Your task to perform on an android device: turn on wifi Image 0: 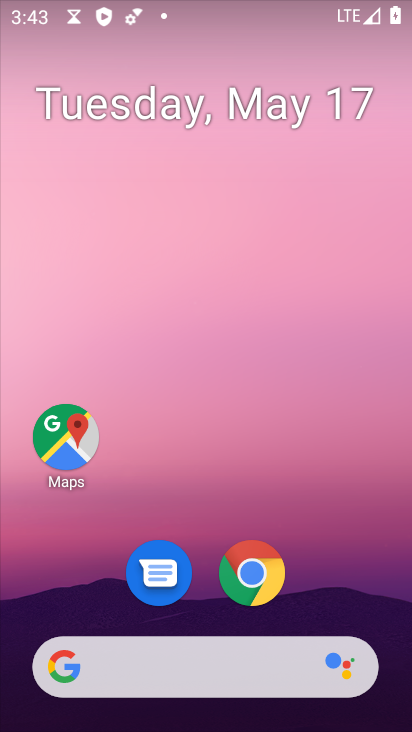
Step 0: drag from (347, 604) to (236, 118)
Your task to perform on an android device: turn on wifi Image 1: 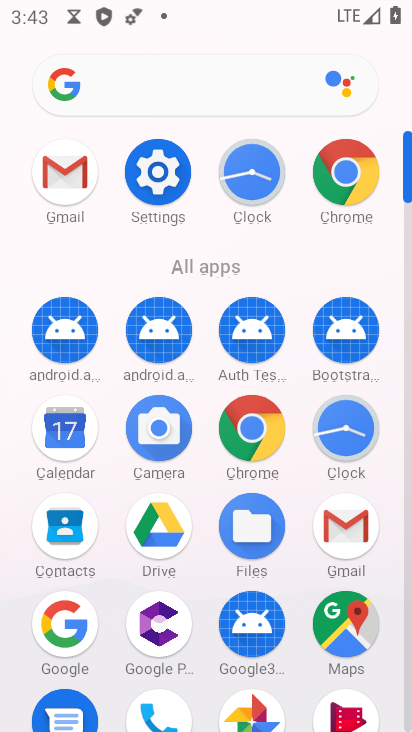
Step 1: click (169, 183)
Your task to perform on an android device: turn on wifi Image 2: 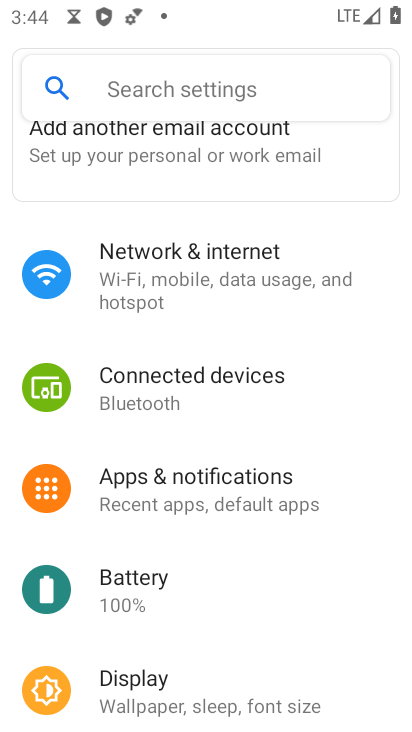
Step 2: click (260, 277)
Your task to perform on an android device: turn on wifi Image 3: 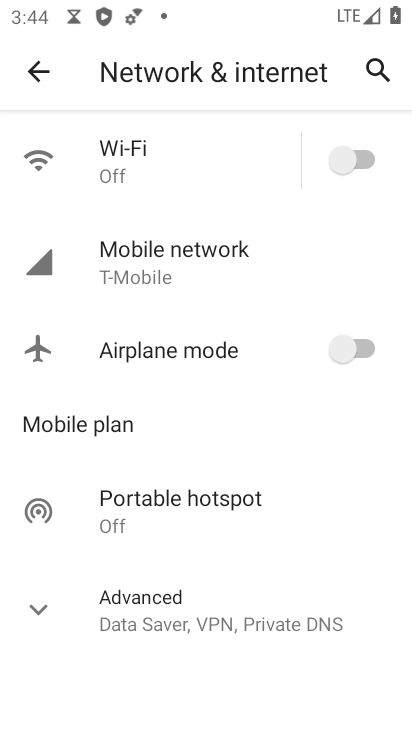
Step 3: click (367, 151)
Your task to perform on an android device: turn on wifi Image 4: 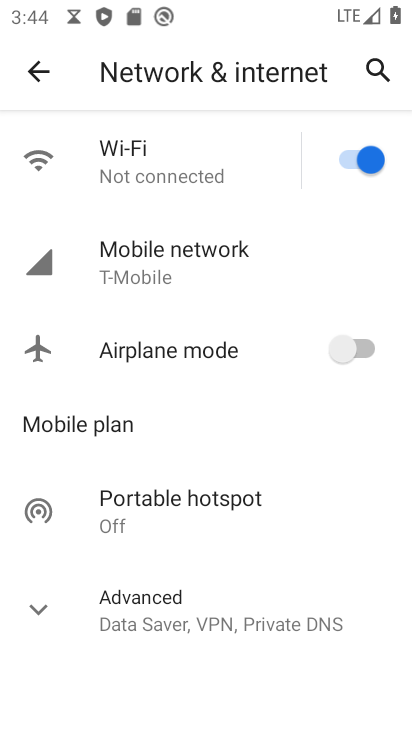
Step 4: task complete